Your task to perform on an android device: empty trash in the gmail app Image 0: 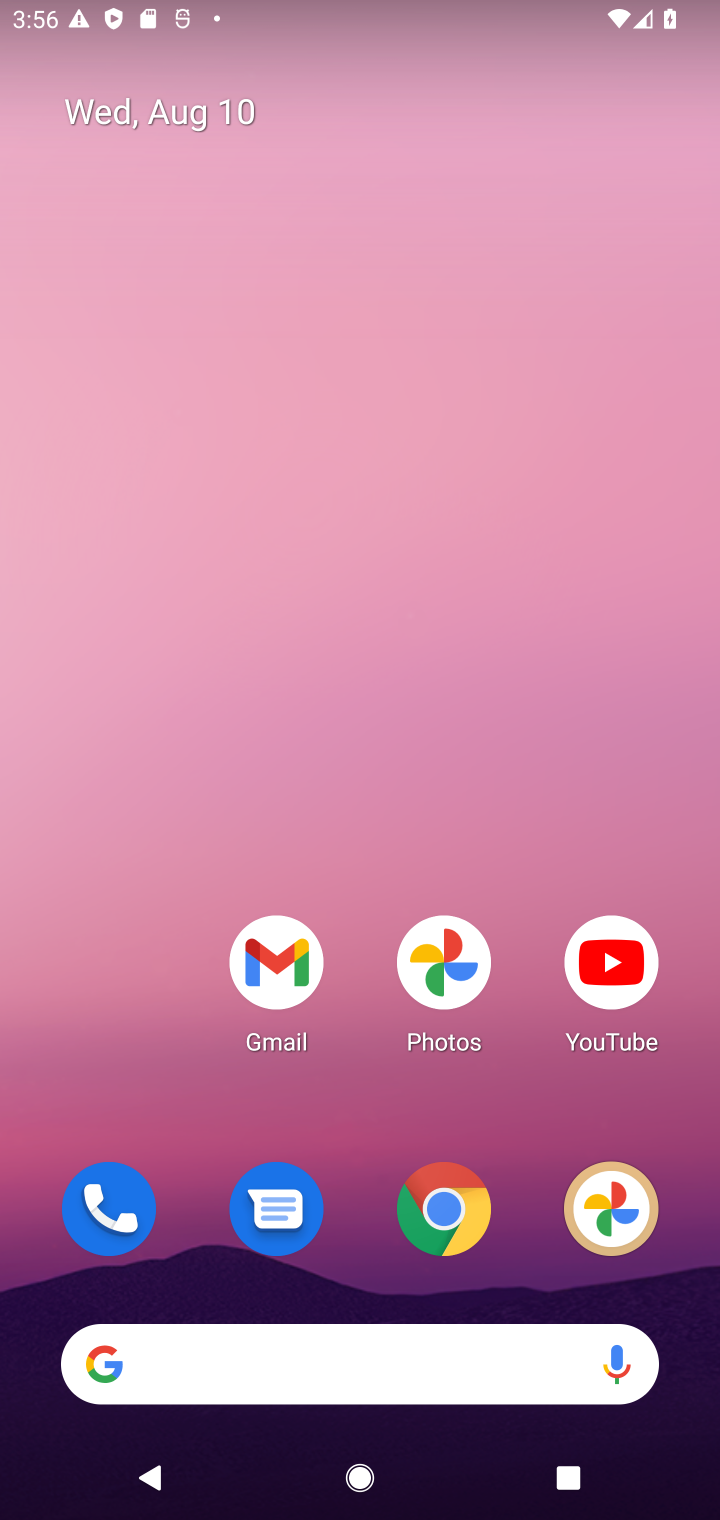
Step 0: click (284, 942)
Your task to perform on an android device: empty trash in the gmail app Image 1: 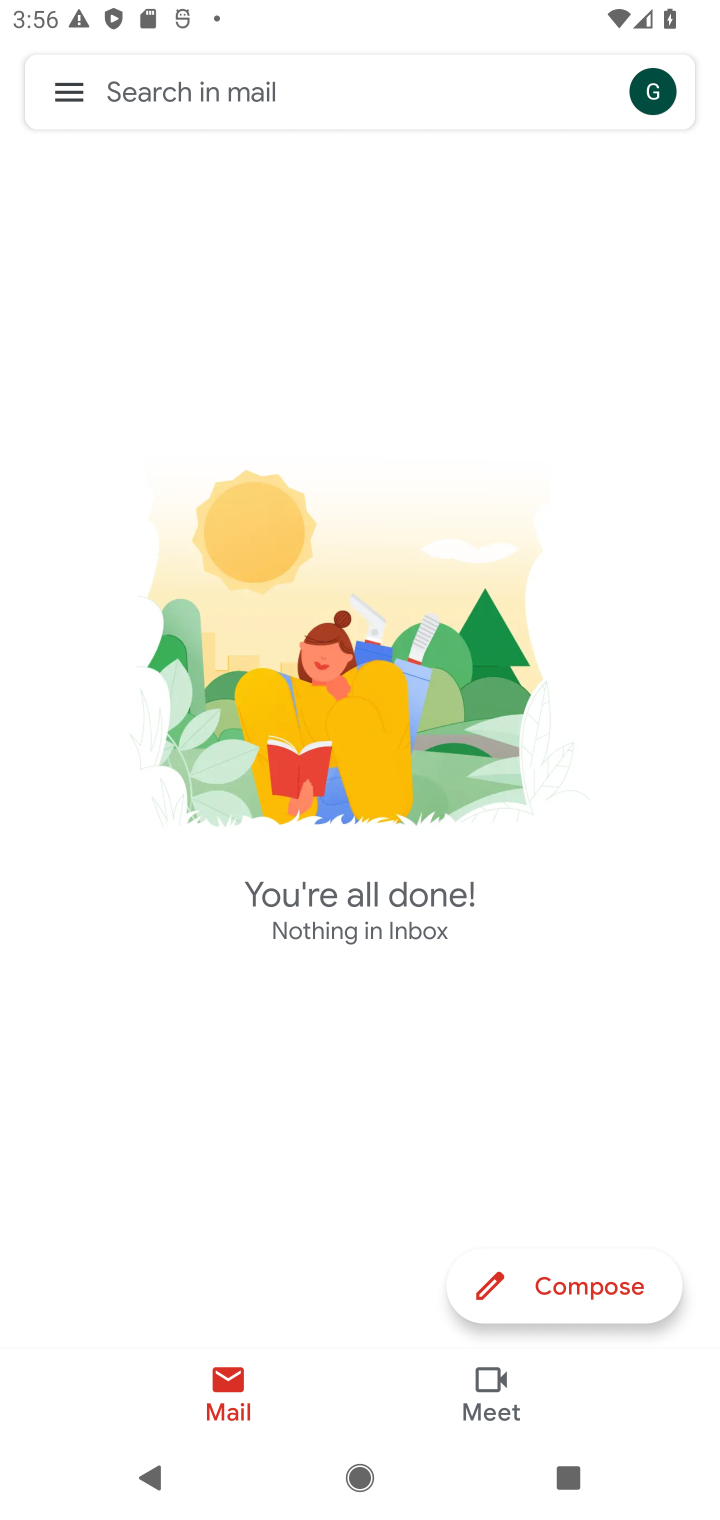
Step 1: click (66, 81)
Your task to perform on an android device: empty trash in the gmail app Image 2: 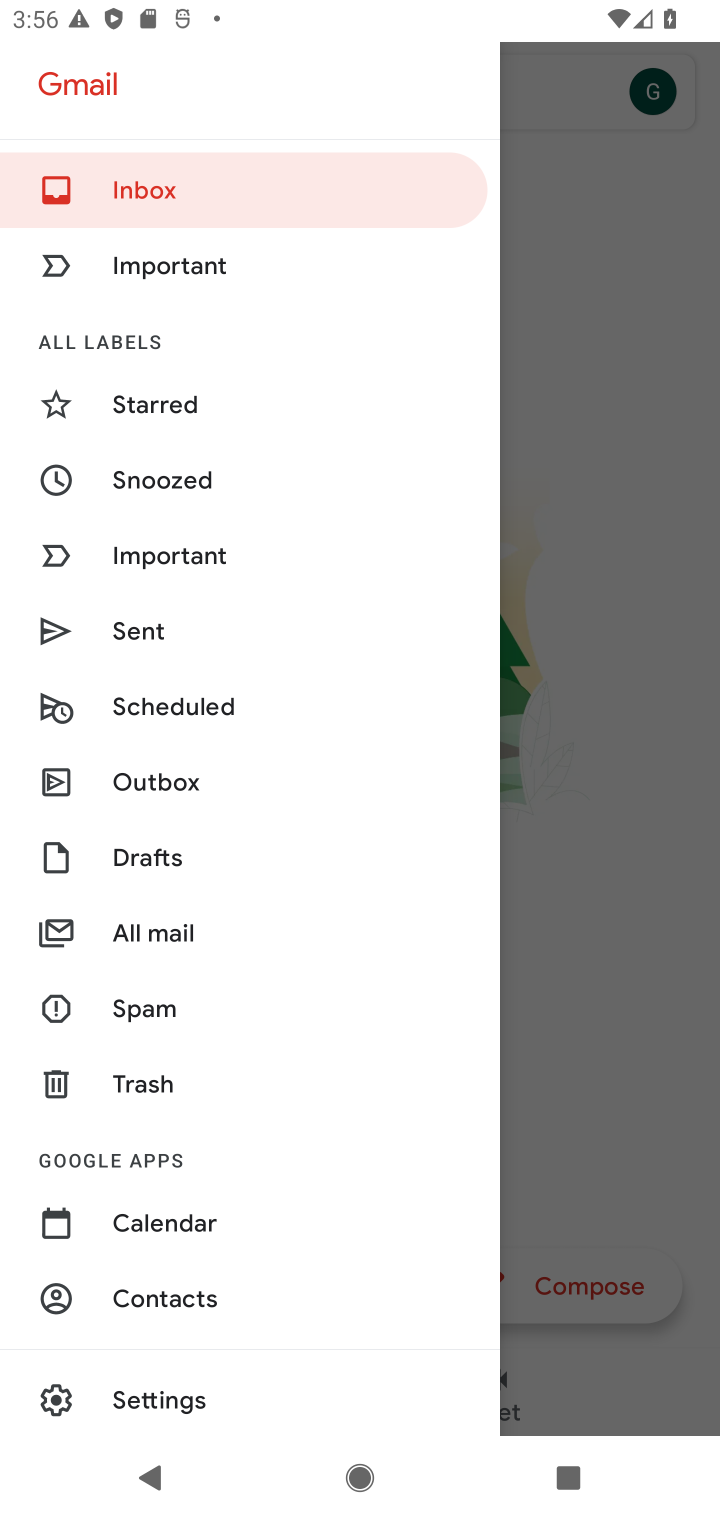
Step 2: click (144, 1092)
Your task to perform on an android device: empty trash in the gmail app Image 3: 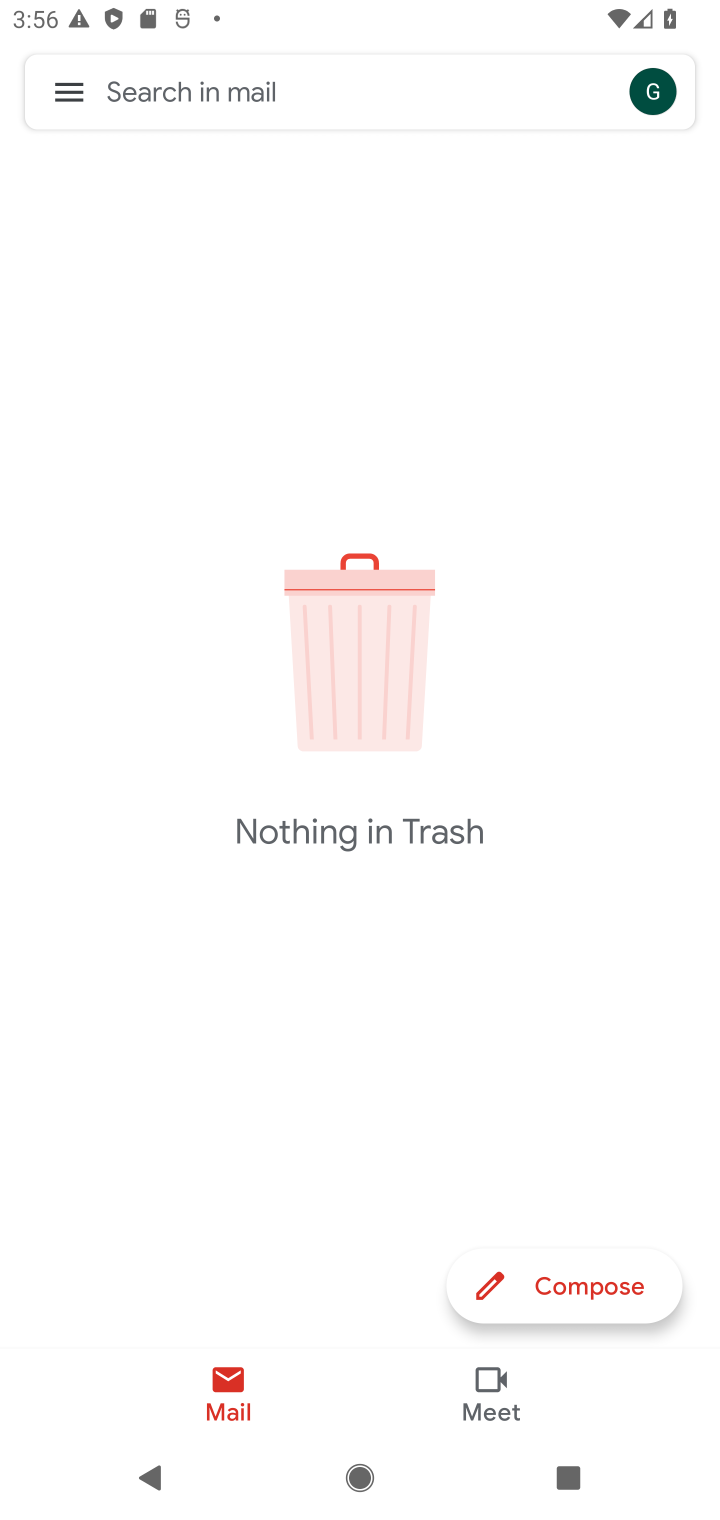
Step 3: task complete